Your task to perform on an android device: turn off notifications settings in the gmail app Image 0: 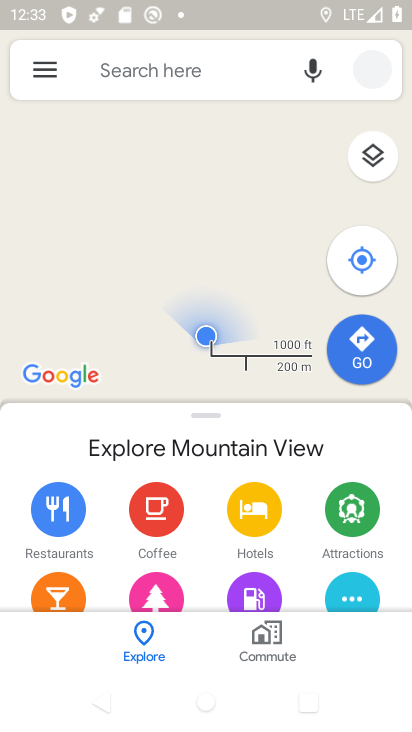
Step 0: press home button
Your task to perform on an android device: turn off notifications settings in the gmail app Image 1: 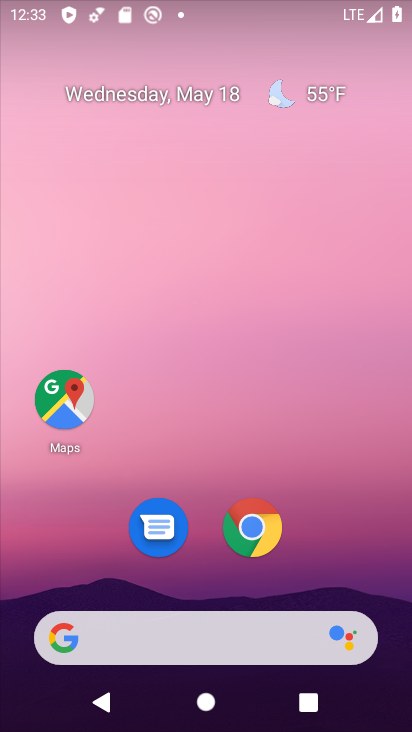
Step 1: drag from (340, 515) to (188, 10)
Your task to perform on an android device: turn off notifications settings in the gmail app Image 2: 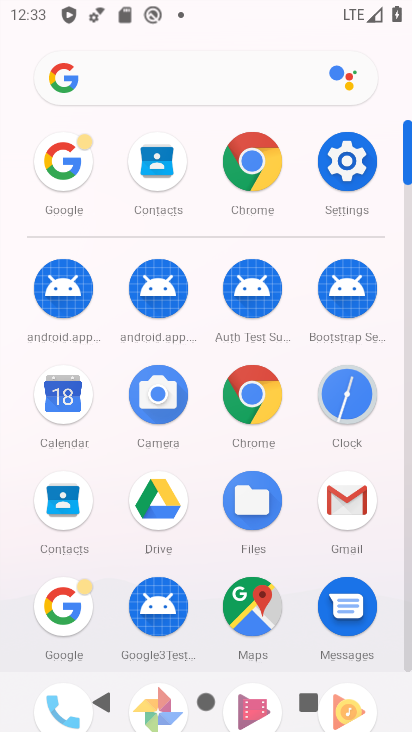
Step 2: click (340, 495)
Your task to perform on an android device: turn off notifications settings in the gmail app Image 3: 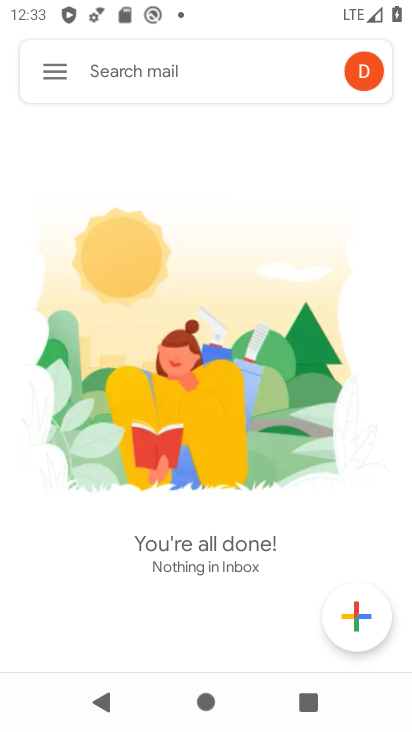
Step 3: click (55, 82)
Your task to perform on an android device: turn off notifications settings in the gmail app Image 4: 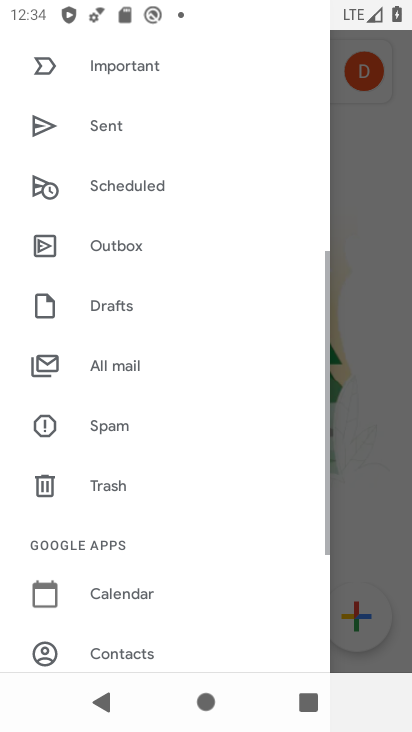
Step 4: drag from (133, 577) to (119, 179)
Your task to perform on an android device: turn off notifications settings in the gmail app Image 5: 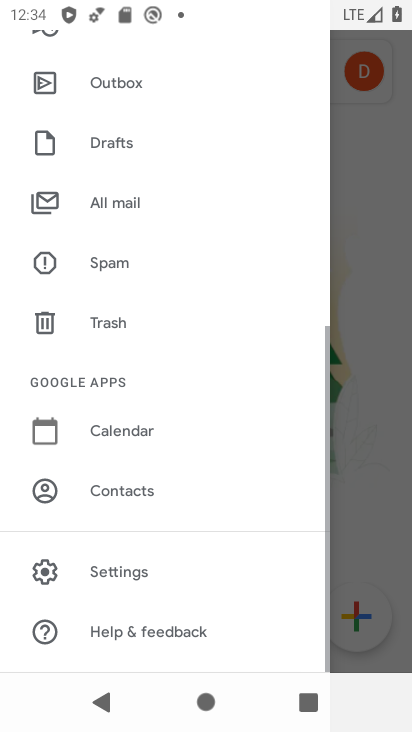
Step 5: click (106, 573)
Your task to perform on an android device: turn off notifications settings in the gmail app Image 6: 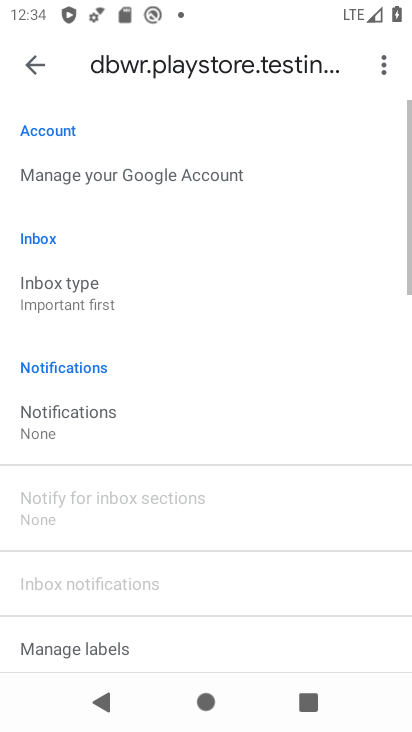
Step 6: click (102, 427)
Your task to perform on an android device: turn off notifications settings in the gmail app Image 7: 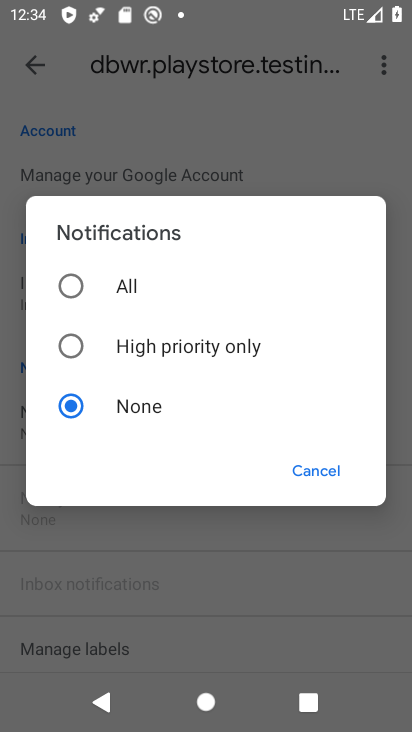
Step 7: task complete